Your task to perform on an android device: Go to internet settings Image 0: 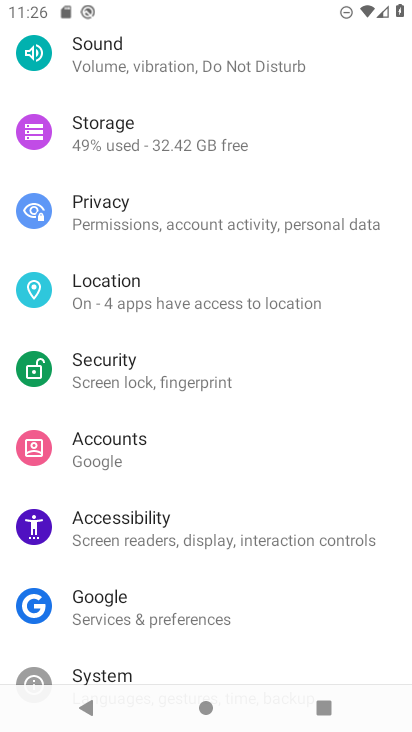
Step 0: press home button
Your task to perform on an android device: Go to internet settings Image 1: 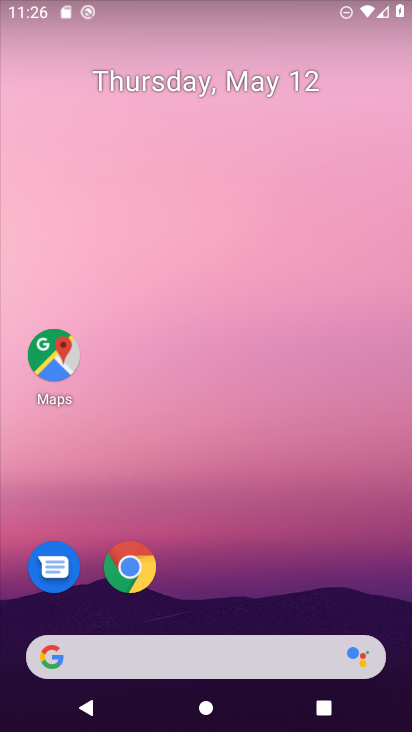
Step 1: drag from (263, 582) to (365, 143)
Your task to perform on an android device: Go to internet settings Image 2: 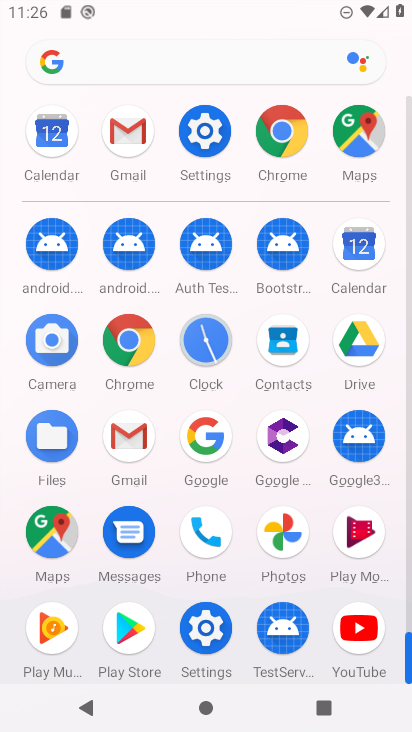
Step 2: click (209, 155)
Your task to perform on an android device: Go to internet settings Image 3: 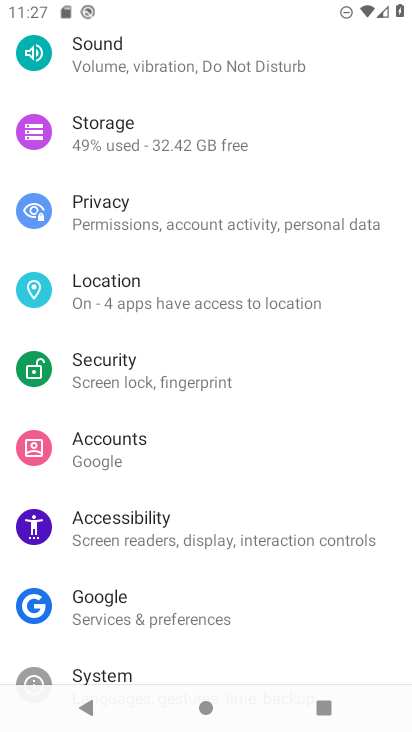
Step 3: drag from (172, 269) to (184, 629)
Your task to perform on an android device: Go to internet settings Image 4: 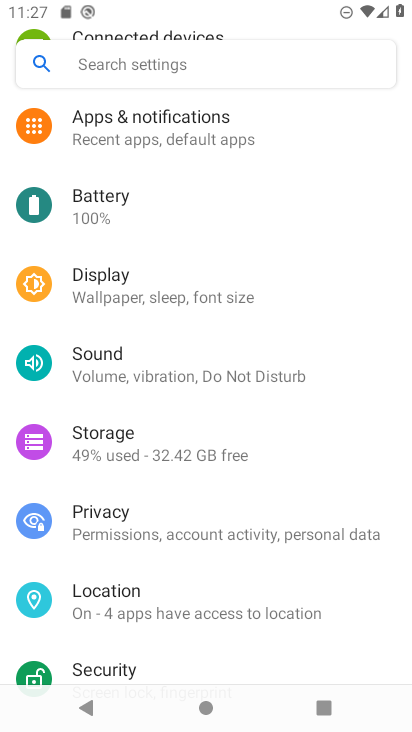
Step 4: drag from (185, 322) to (128, 674)
Your task to perform on an android device: Go to internet settings Image 5: 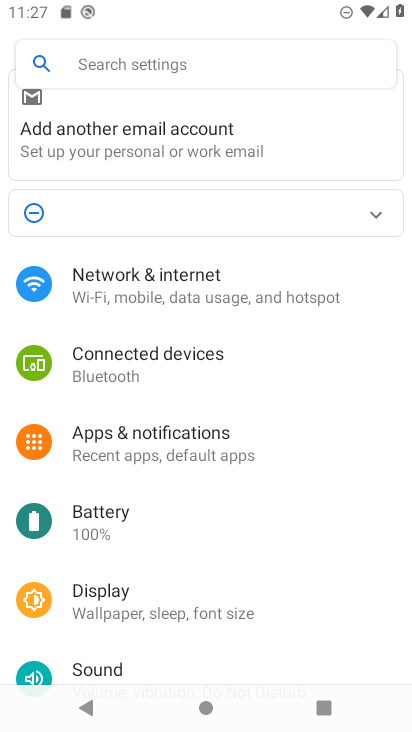
Step 5: click (176, 291)
Your task to perform on an android device: Go to internet settings Image 6: 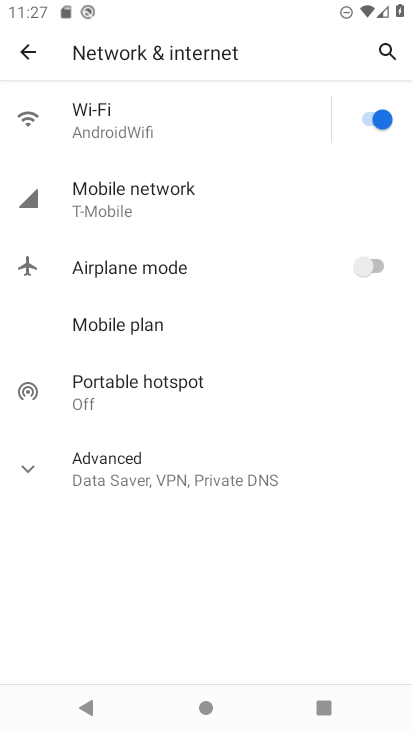
Step 6: click (130, 205)
Your task to perform on an android device: Go to internet settings Image 7: 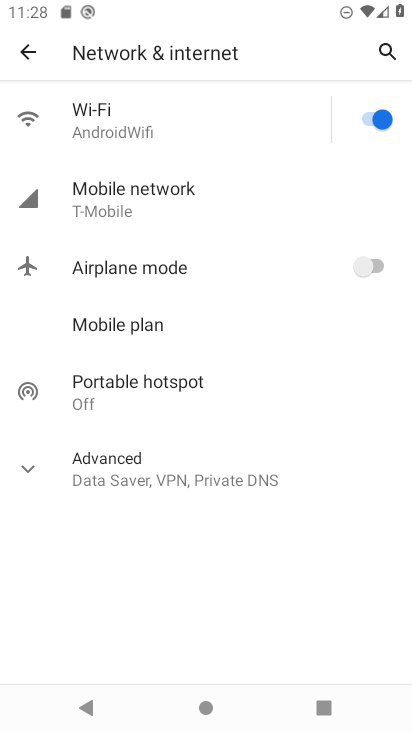
Step 7: task complete